Your task to perform on an android device: Find coffee shops on Maps Image 0: 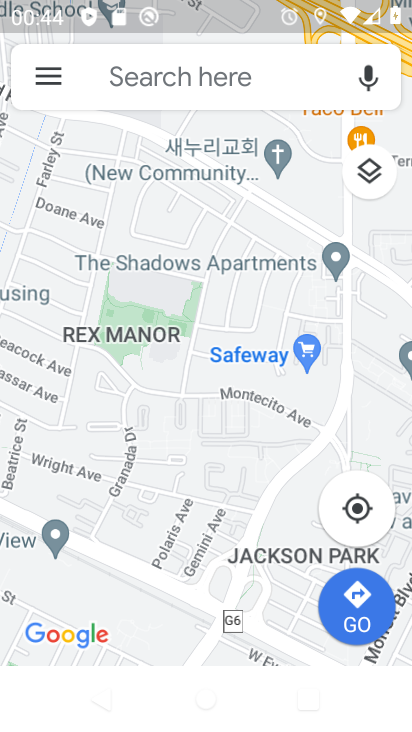
Step 0: click (151, 84)
Your task to perform on an android device: Find coffee shops on Maps Image 1: 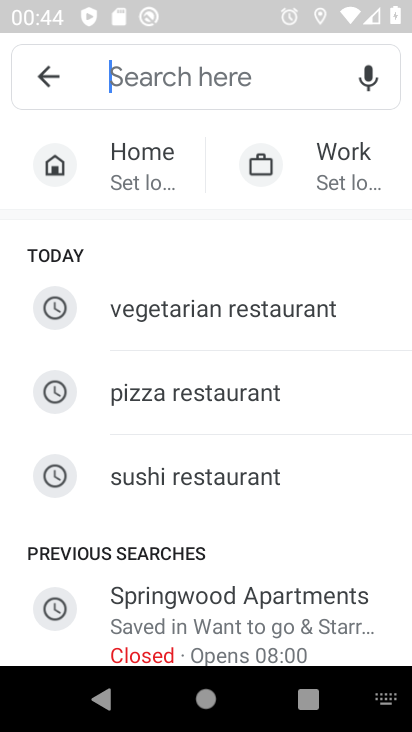
Step 1: drag from (223, 504) to (197, 299)
Your task to perform on an android device: Find coffee shops on Maps Image 2: 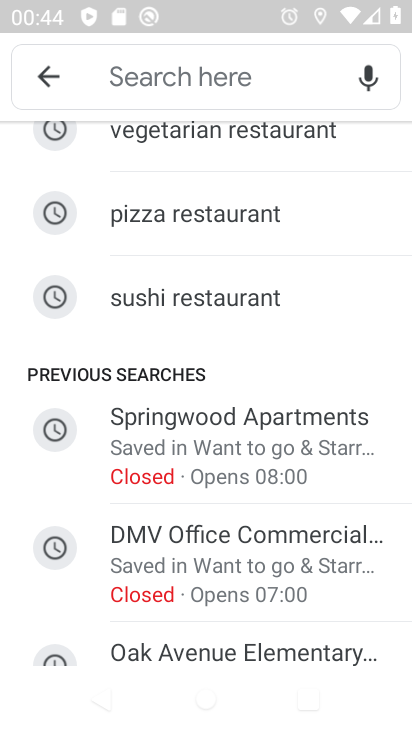
Step 2: drag from (172, 627) to (163, 411)
Your task to perform on an android device: Find coffee shops on Maps Image 3: 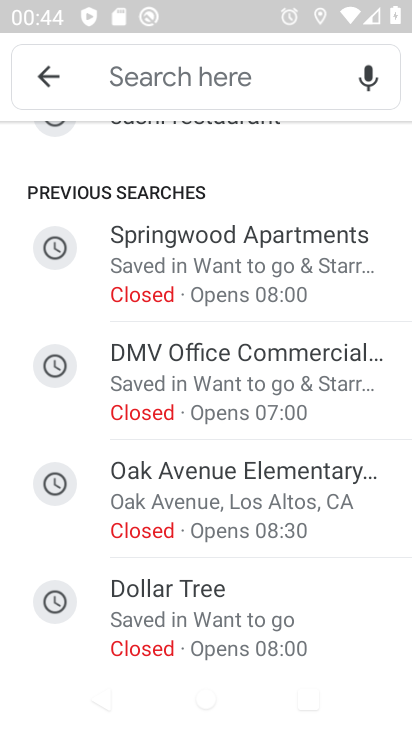
Step 3: type "coffee shopes"
Your task to perform on an android device: Find coffee shops on Maps Image 4: 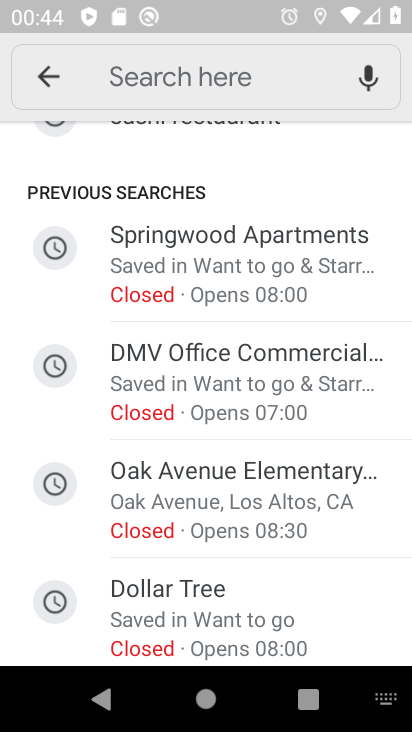
Step 4: drag from (231, 175) to (231, 484)
Your task to perform on an android device: Find coffee shops on Maps Image 5: 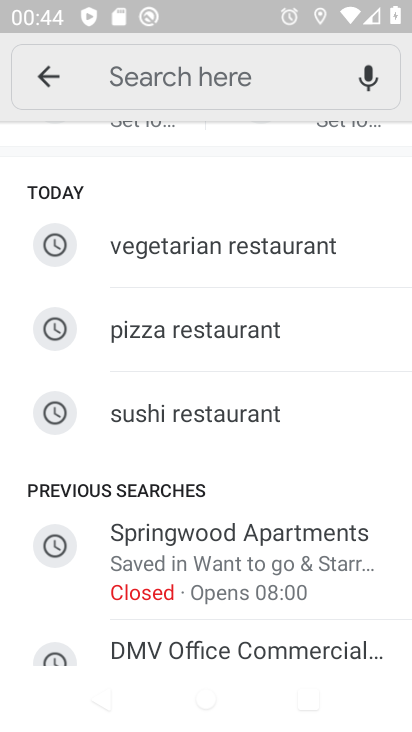
Step 5: drag from (187, 170) to (190, 480)
Your task to perform on an android device: Find coffee shops on Maps Image 6: 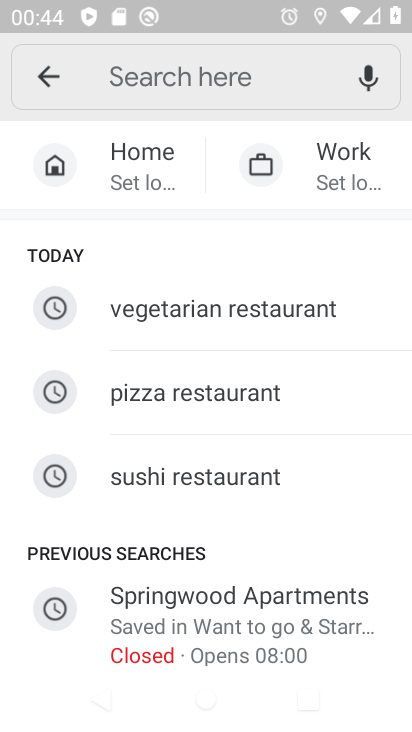
Step 6: click (124, 82)
Your task to perform on an android device: Find coffee shops on Maps Image 7: 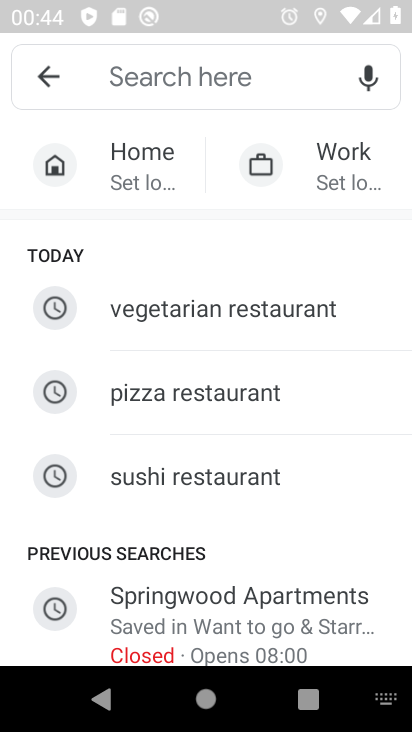
Step 7: type "coffee shopes"
Your task to perform on an android device: Find coffee shops on Maps Image 8: 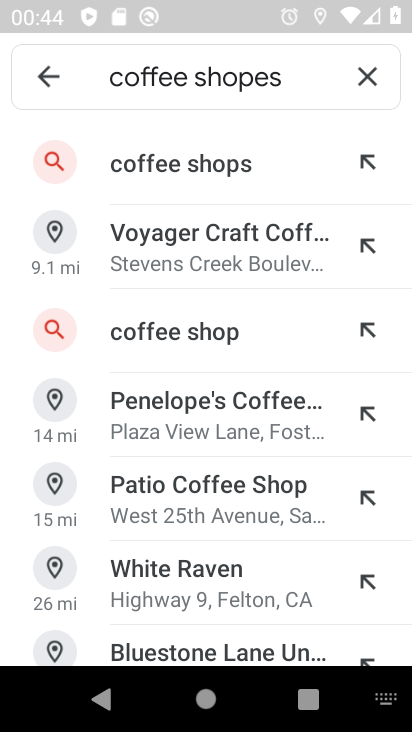
Step 8: click (244, 167)
Your task to perform on an android device: Find coffee shops on Maps Image 9: 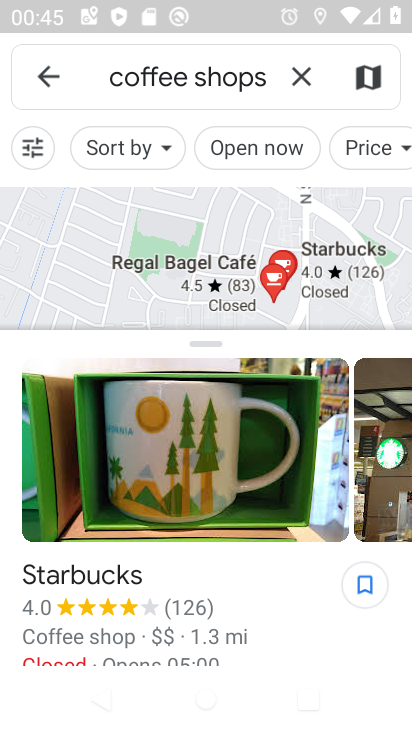
Step 9: task complete